Your task to perform on an android device: check battery use Image 0: 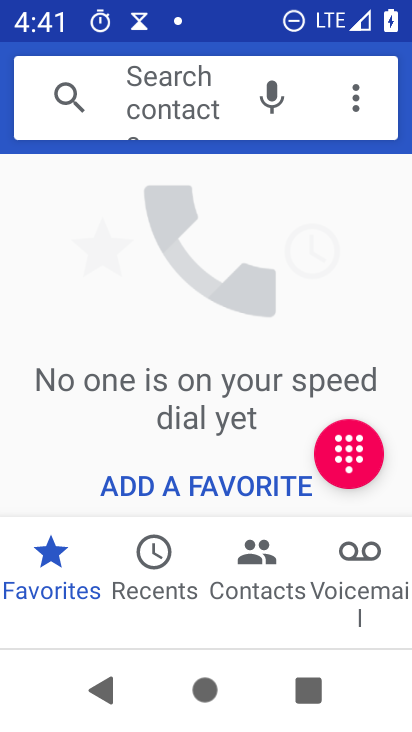
Step 0: press home button
Your task to perform on an android device: check battery use Image 1: 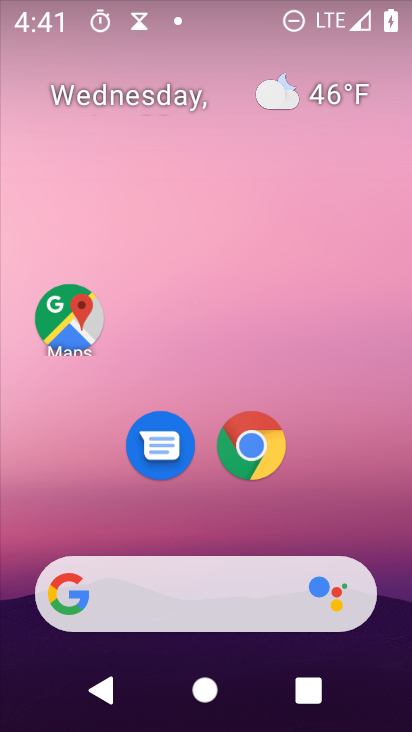
Step 1: drag from (310, 509) to (288, 44)
Your task to perform on an android device: check battery use Image 2: 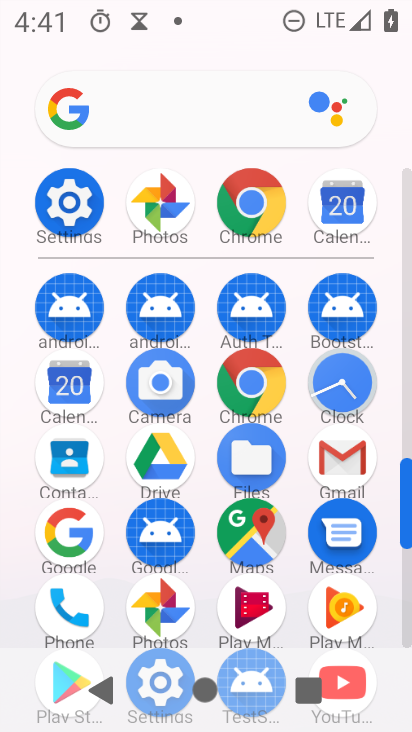
Step 2: click (69, 205)
Your task to perform on an android device: check battery use Image 3: 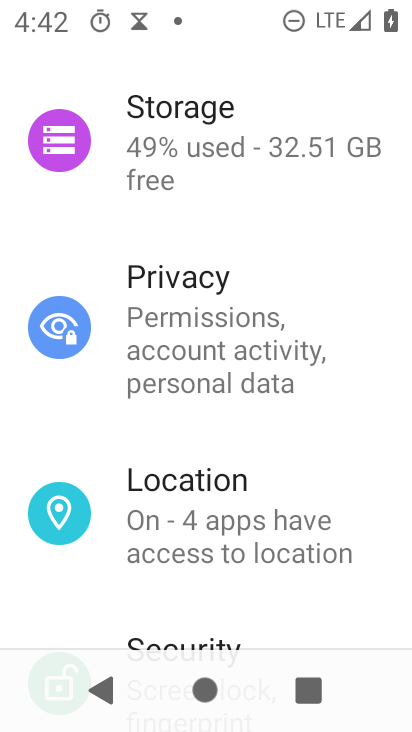
Step 3: drag from (269, 242) to (317, 389)
Your task to perform on an android device: check battery use Image 4: 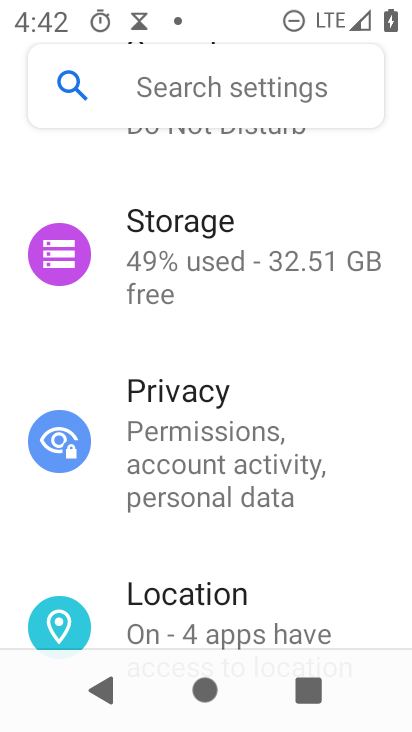
Step 4: drag from (280, 212) to (322, 404)
Your task to perform on an android device: check battery use Image 5: 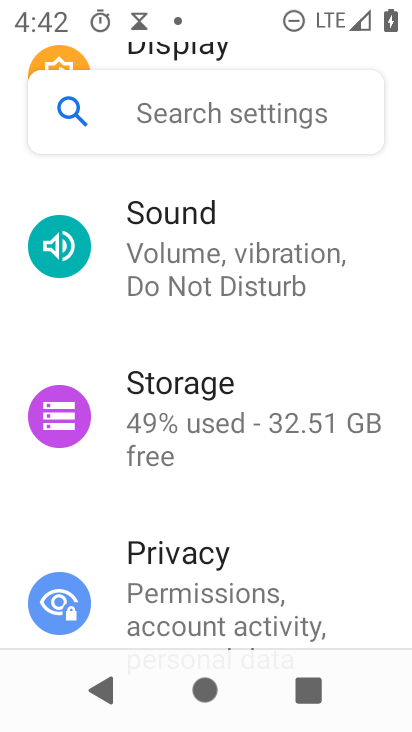
Step 5: drag from (301, 214) to (315, 362)
Your task to perform on an android device: check battery use Image 6: 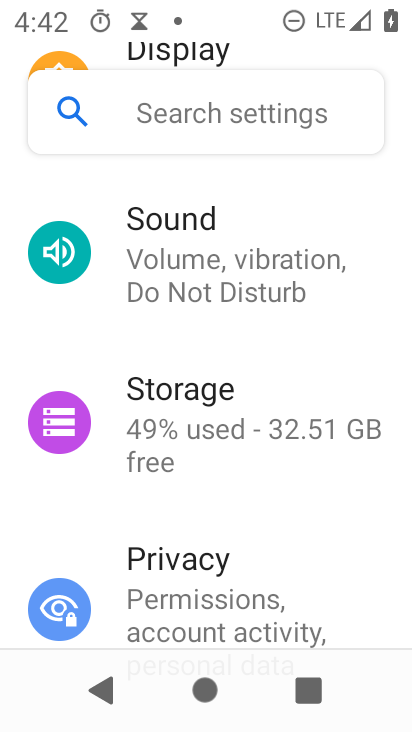
Step 6: drag from (263, 216) to (289, 391)
Your task to perform on an android device: check battery use Image 7: 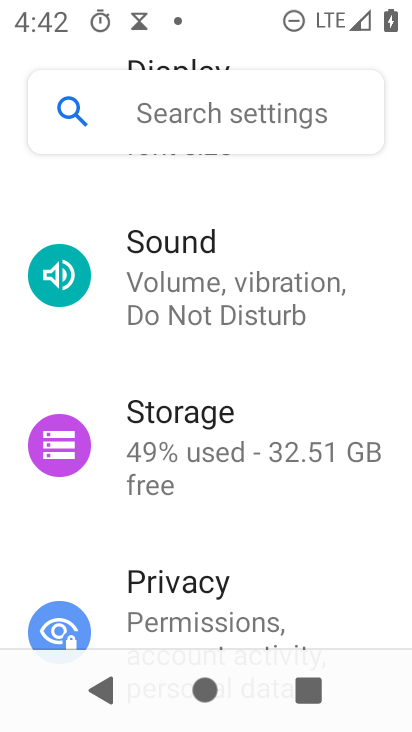
Step 7: drag from (253, 224) to (279, 358)
Your task to perform on an android device: check battery use Image 8: 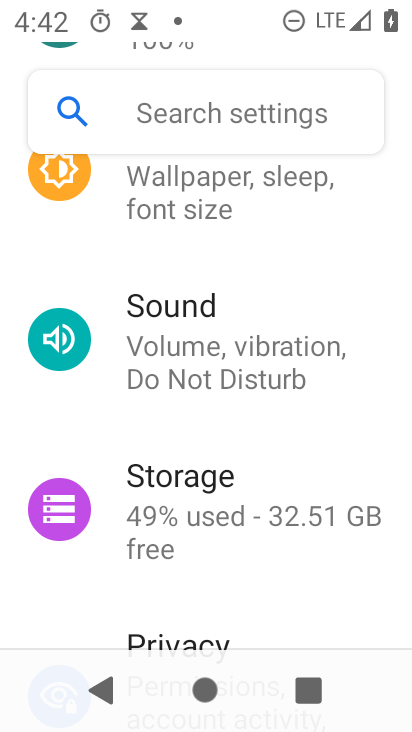
Step 8: drag from (264, 223) to (277, 398)
Your task to perform on an android device: check battery use Image 9: 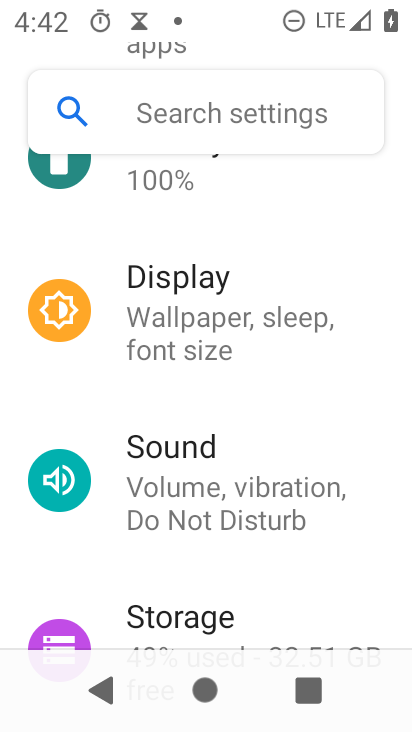
Step 9: drag from (264, 249) to (311, 441)
Your task to perform on an android device: check battery use Image 10: 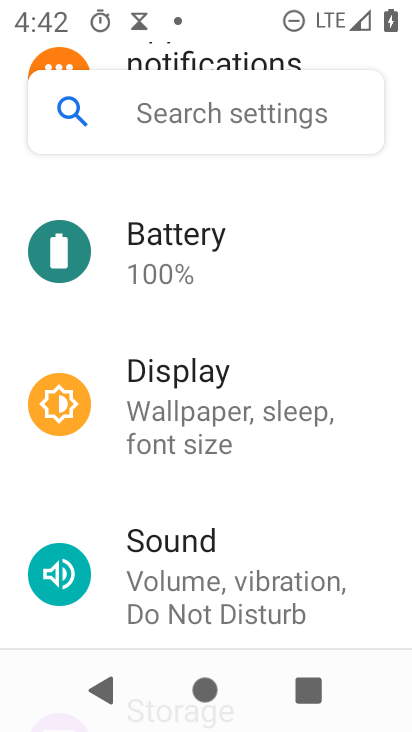
Step 10: click (203, 239)
Your task to perform on an android device: check battery use Image 11: 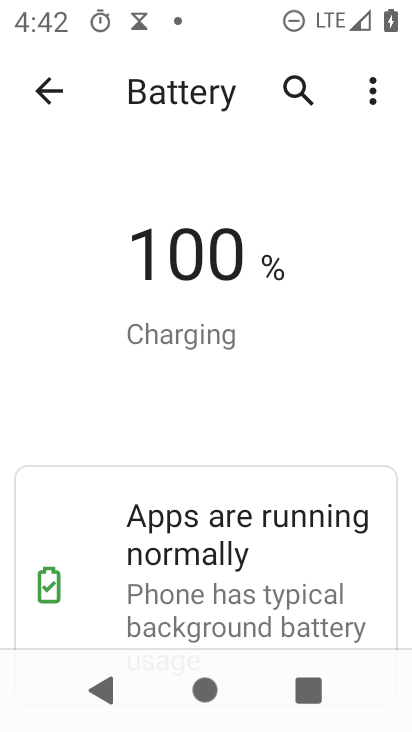
Step 11: task complete